Your task to perform on an android device: Open battery settings Image 0: 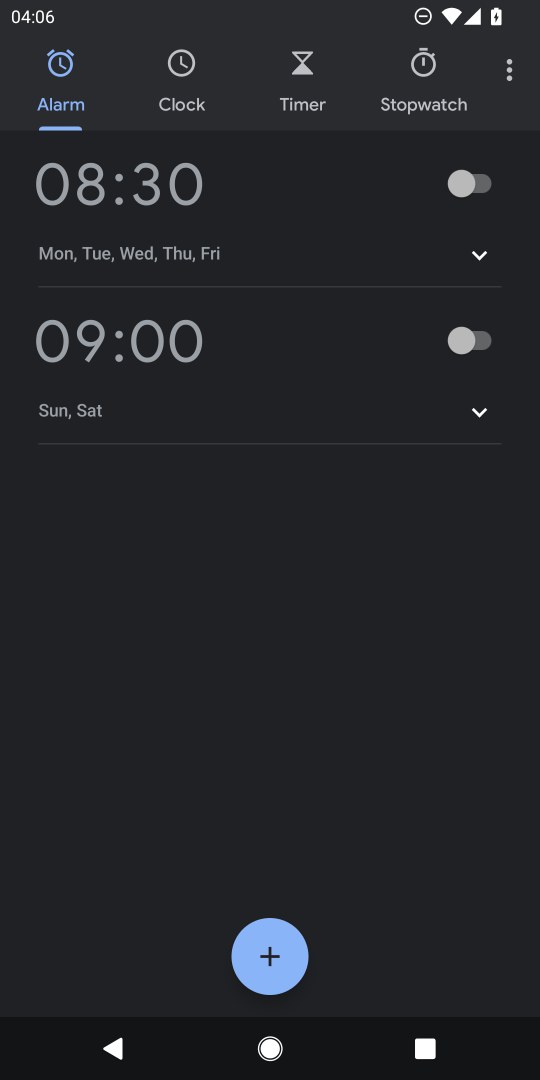
Step 0: press home button
Your task to perform on an android device: Open battery settings Image 1: 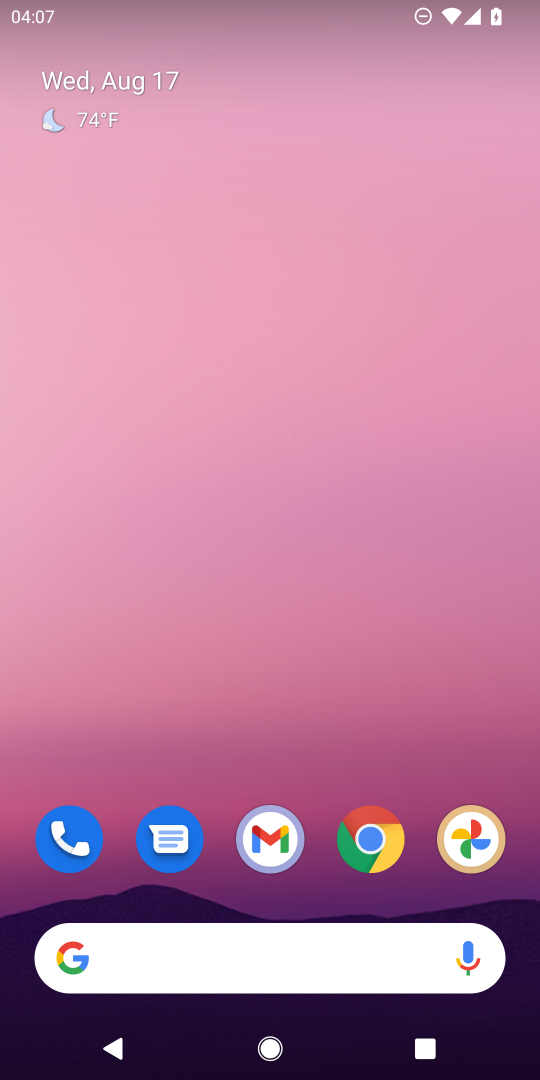
Step 1: drag from (319, 882) to (281, 131)
Your task to perform on an android device: Open battery settings Image 2: 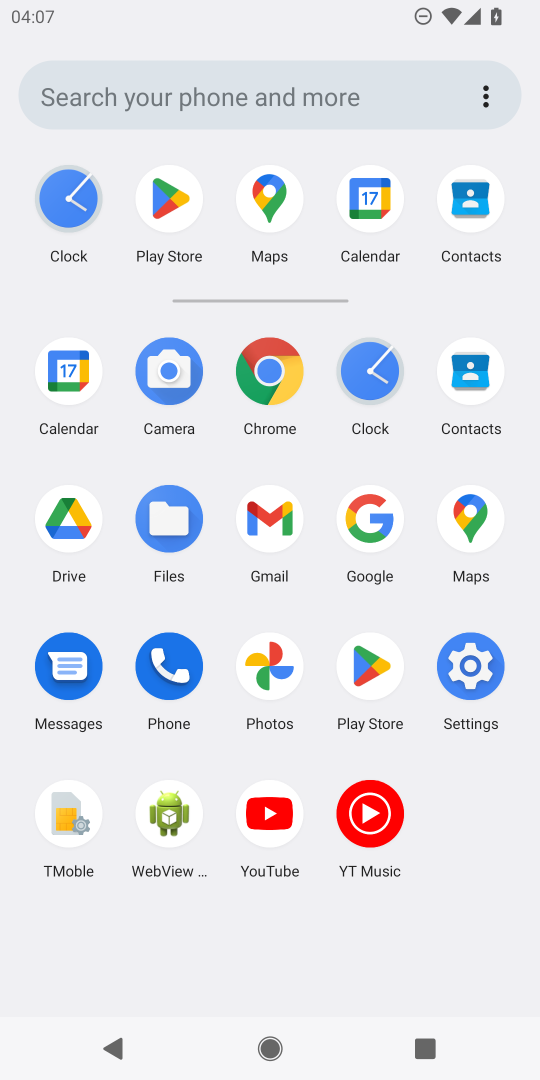
Step 2: click (459, 658)
Your task to perform on an android device: Open battery settings Image 3: 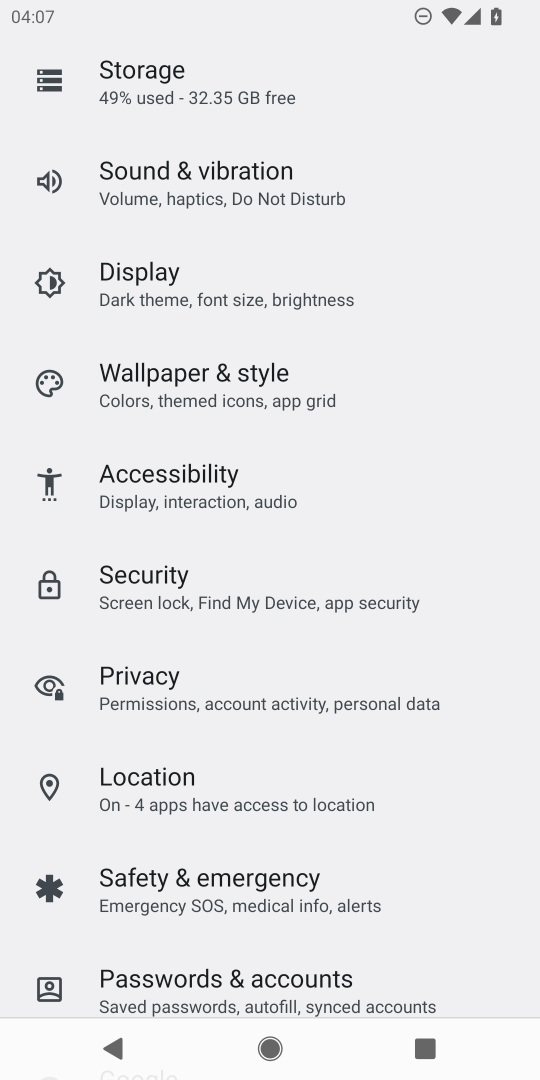
Step 3: drag from (256, 257) to (244, 779)
Your task to perform on an android device: Open battery settings Image 4: 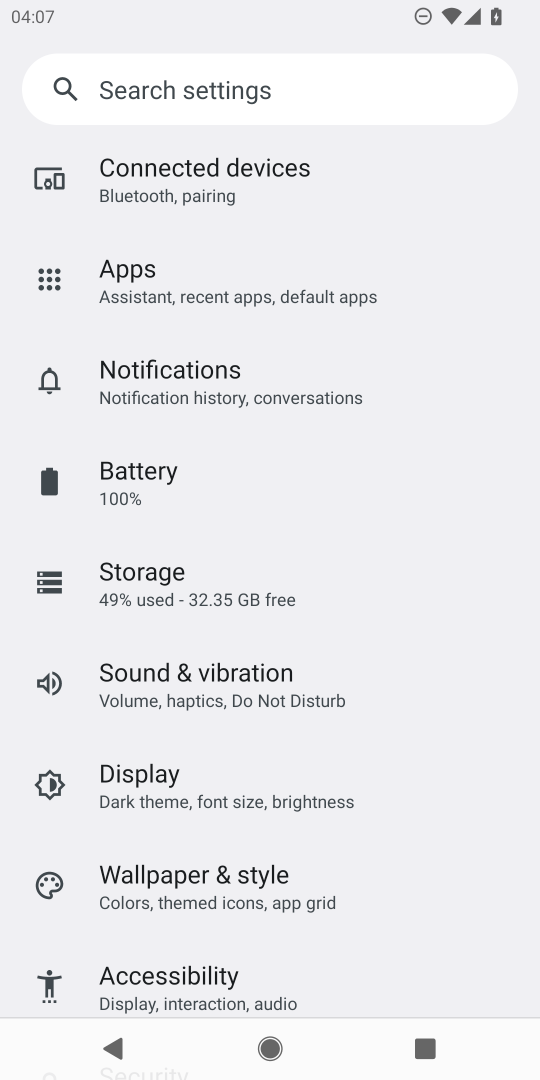
Step 4: click (144, 481)
Your task to perform on an android device: Open battery settings Image 5: 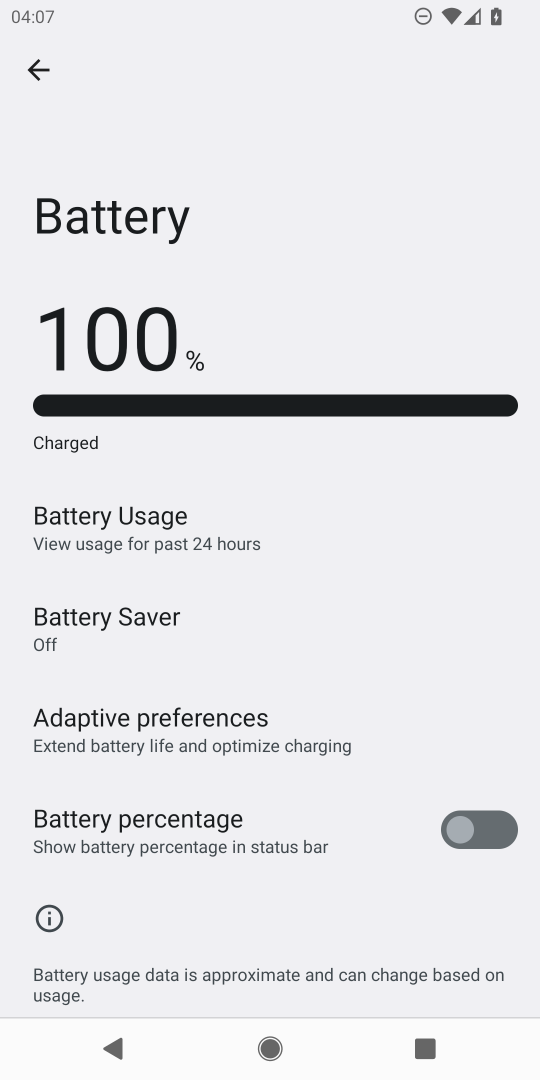
Step 5: task complete